Your task to perform on an android device: Go to display settings Image 0: 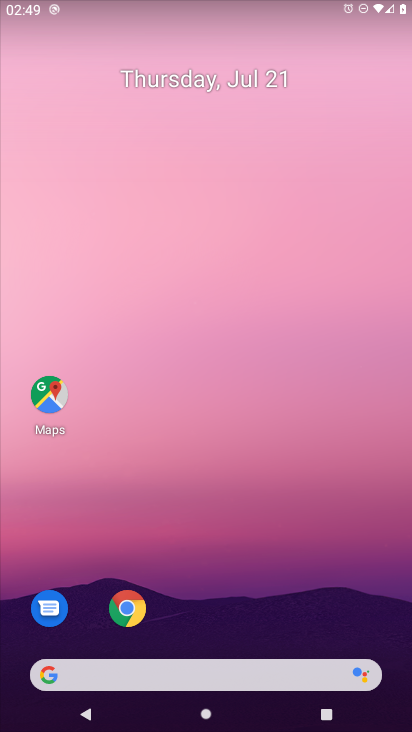
Step 0: press home button
Your task to perform on an android device: Go to display settings Image 1: 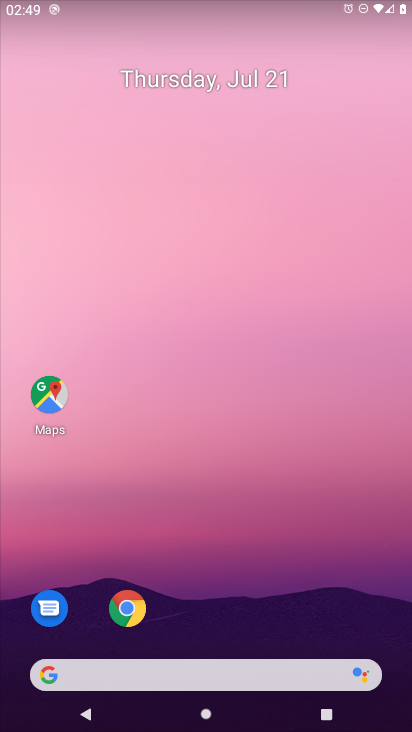
Step 1: drag from (249, 627) to (257, 197)
Your task to perform on an android device: Go to display settings Image 2: 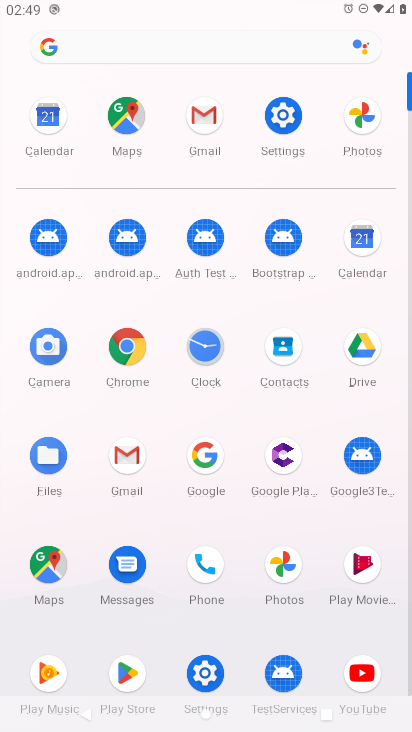
Step 2: click (280, 109)
Your task to perform on an android device: Go to display settings Image 3: 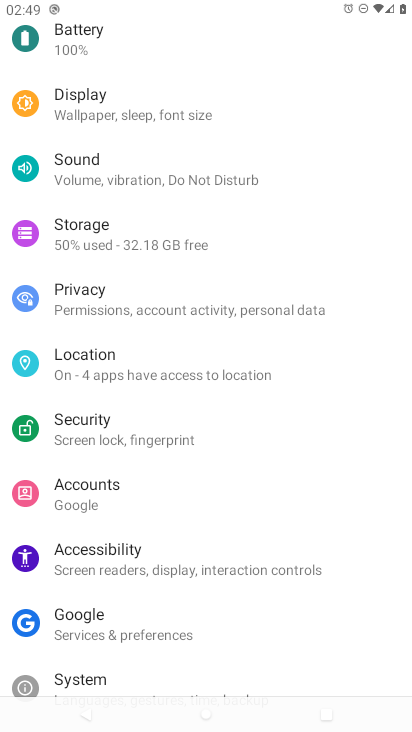
Step 3: click (74, 104)
Your task to perform on an android device: Go to display settings Image 4: 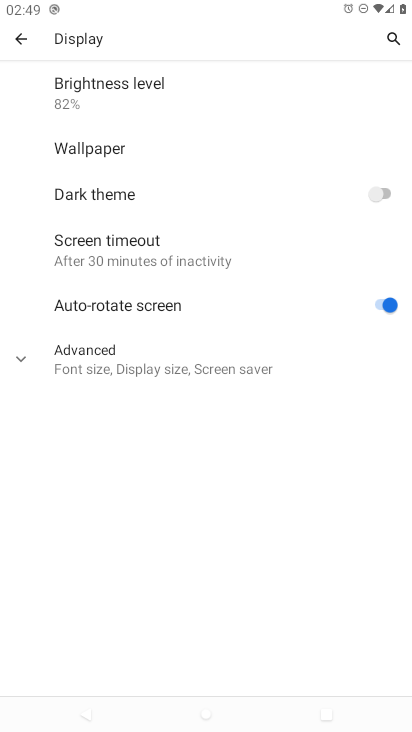
Step 4: task complete